Your task to perform on an android device: Go to eBay Image 0: 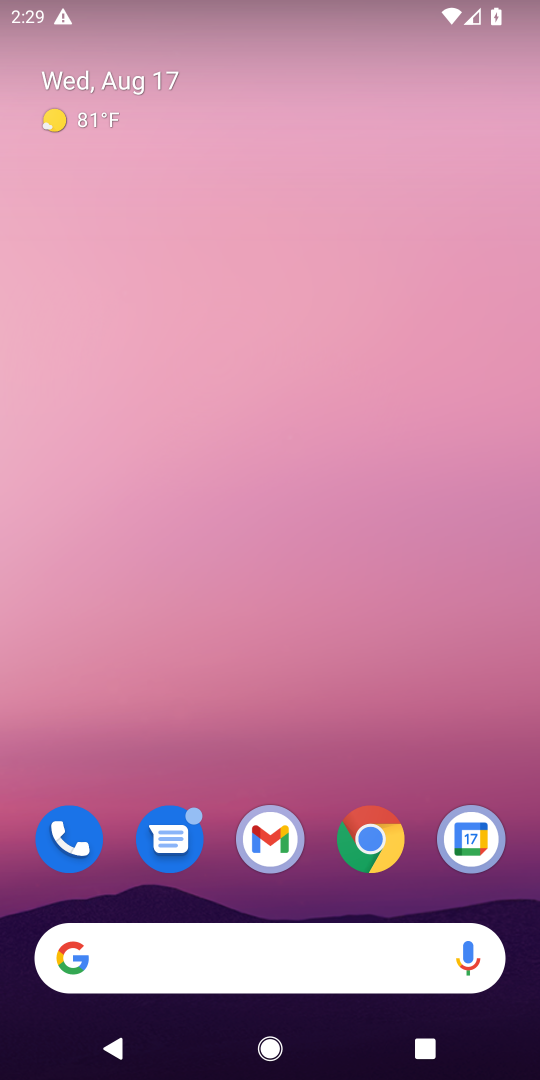
Step 0: click (373, 836)
Your task to perform on an android device: Go to eBay Image 1: 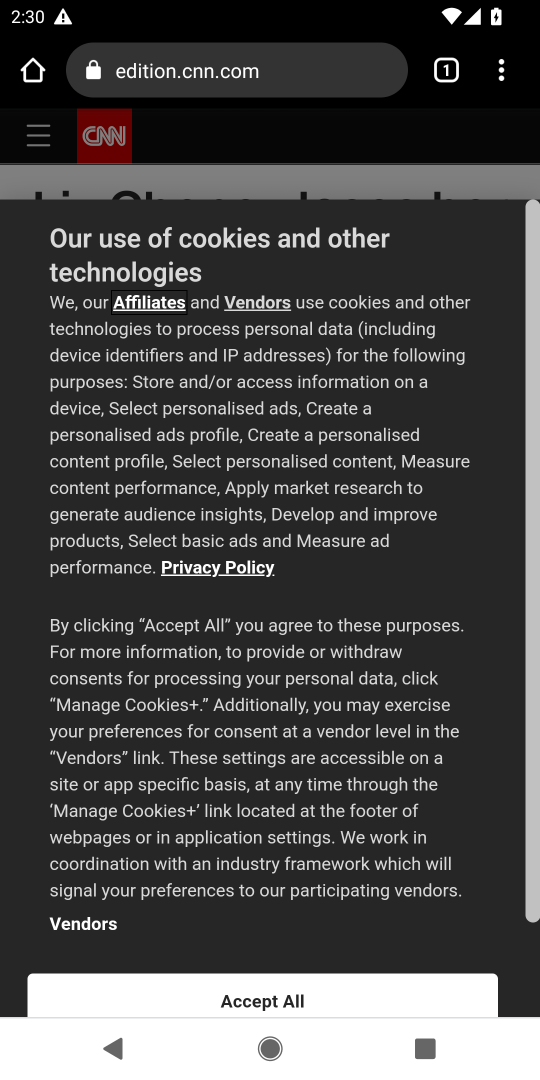
Step 1: click (502, 81)
Your task to perform on an android device: Go to eBay Image 2: 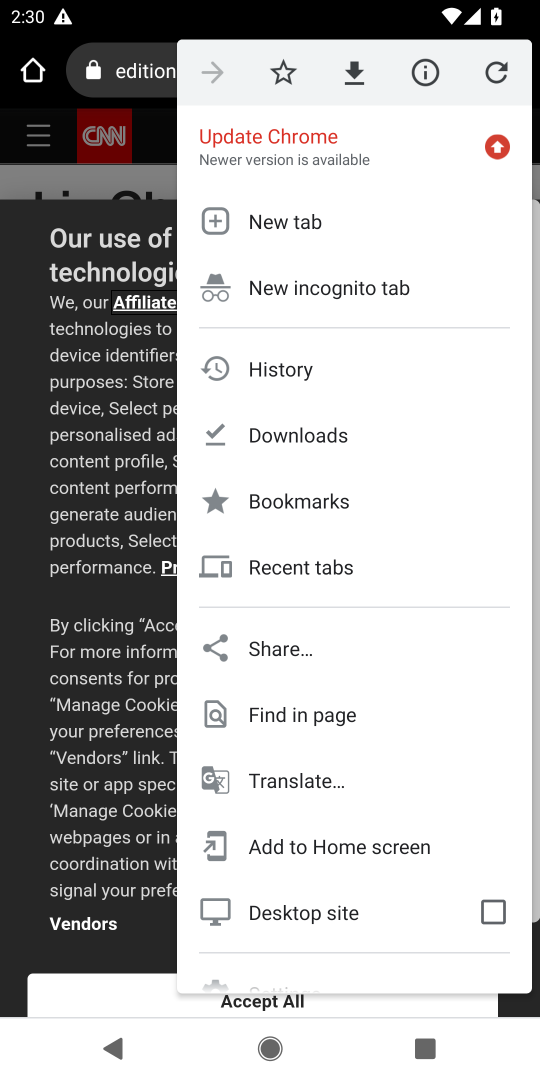
Step 2: click (282, 219)
Your task to perform on an android device: Go to eBay Image 3: 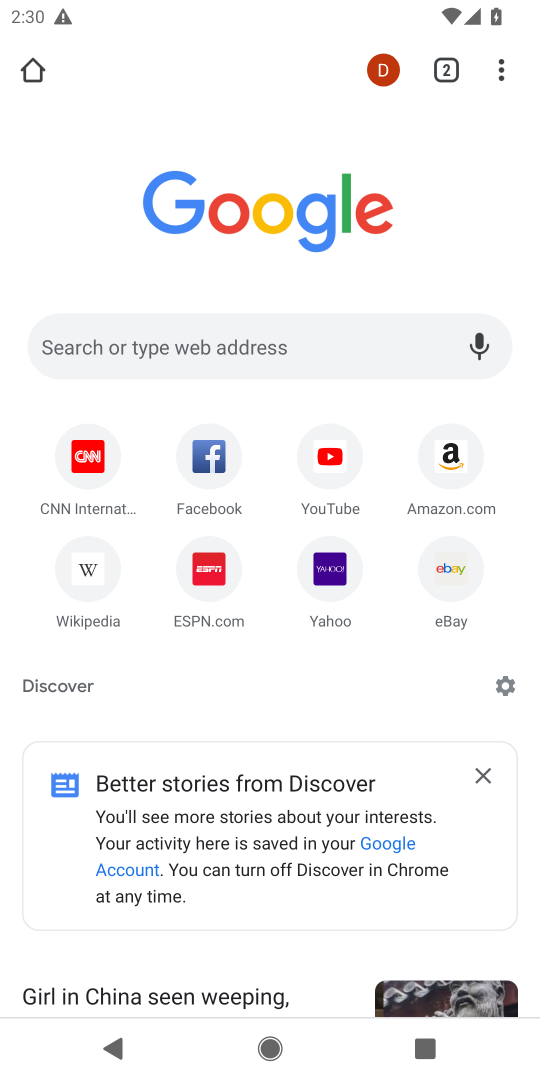
Step 3: click (439, 578)
Your task to perform on an android device: Go to eBay Image 4: 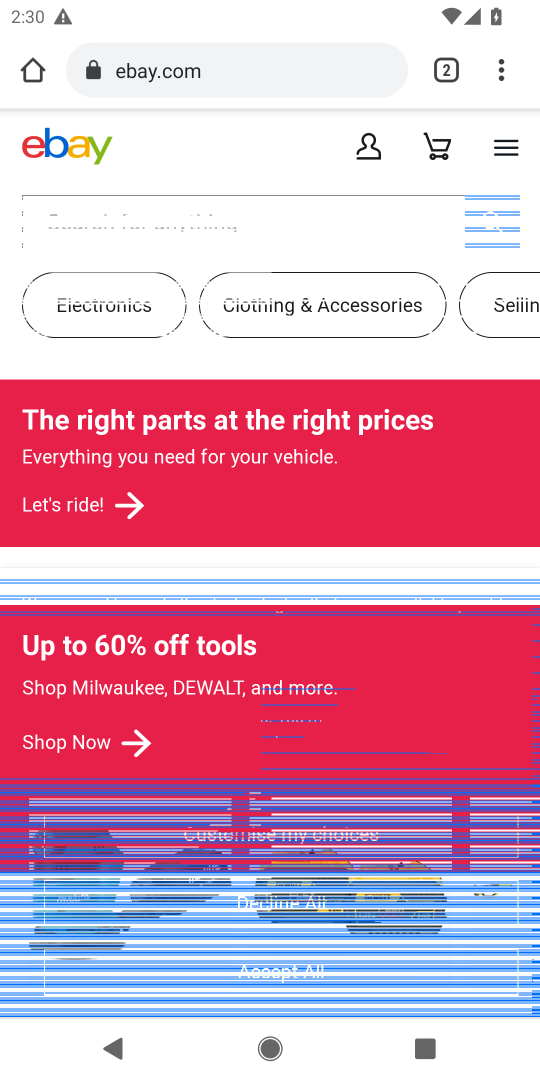
Step 4: task complete